Your task to perform on an android device: delete browsing data in the chrome app Image 0: 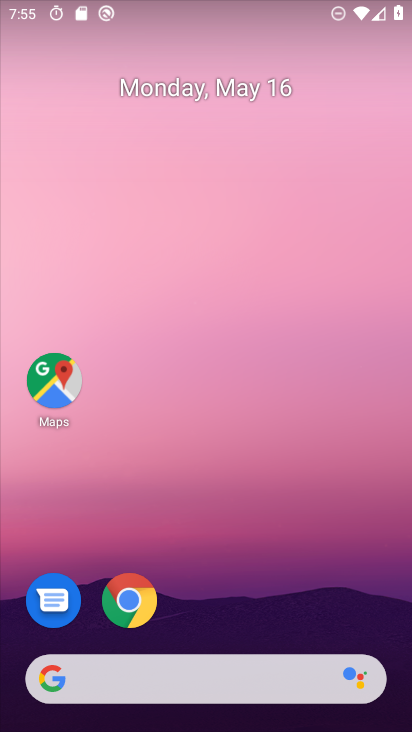
Step 0: click (142, 611)
Your task to perform on an android device: delete browsing data in the chrome app Image 1: 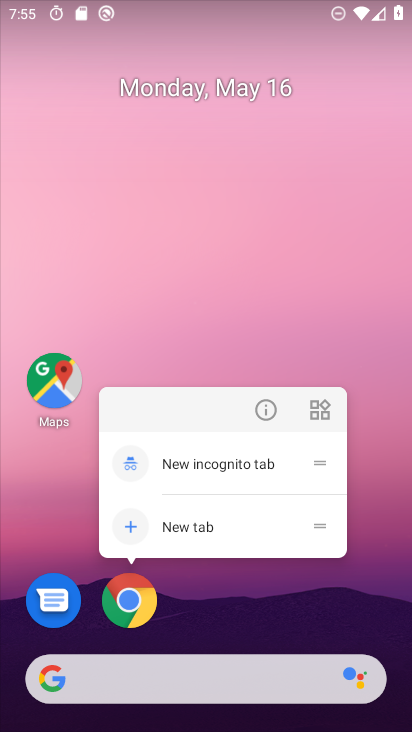
Step 1: click (140, 598)
Your task to perform on an android device: delete browsing data in the chrome app Image 2: 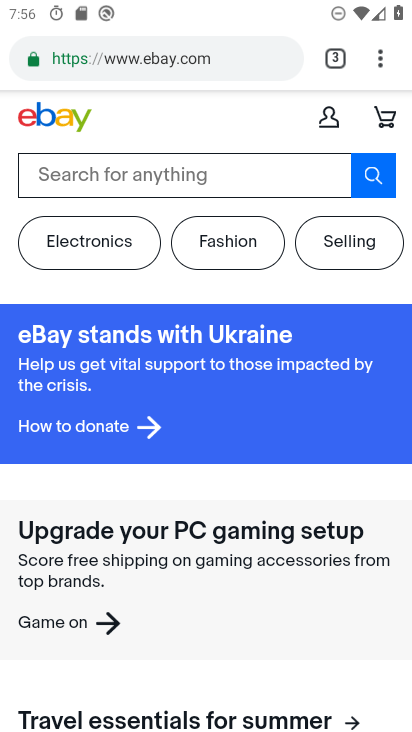
Step 2: drag from (374, 63) to (255, 645)
Your task to perform on an android device: delete browsing data in the chrome app Image 3: 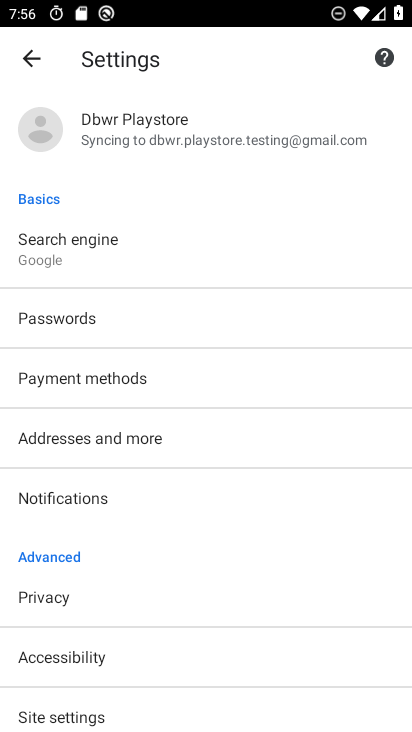
Step 3: click (70, 597)
Your task to perform on an android device: delete browsing data in the chrome app Image 4: 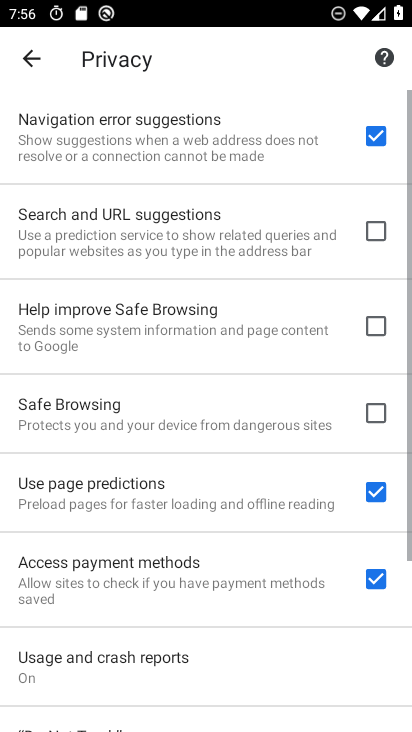
Step 4: drag from (159, 631) to (370, 109)
Your task to perform on an android device: delete browsing data in the chrome app Image 5: 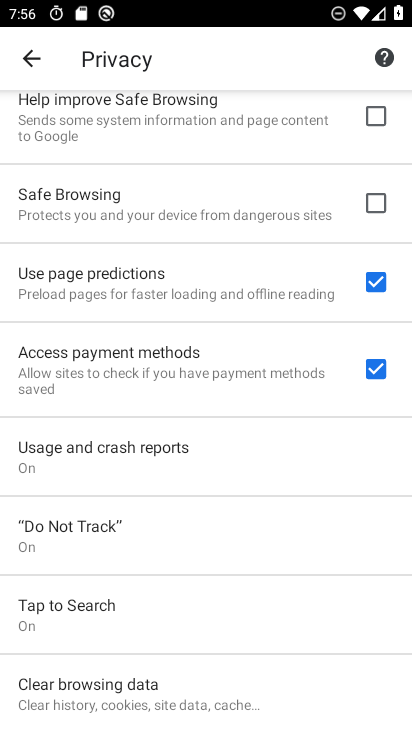
Step 5: click (148, 692)
Your task to perform on an android device: delete browsing data in the chrome app Image 6: 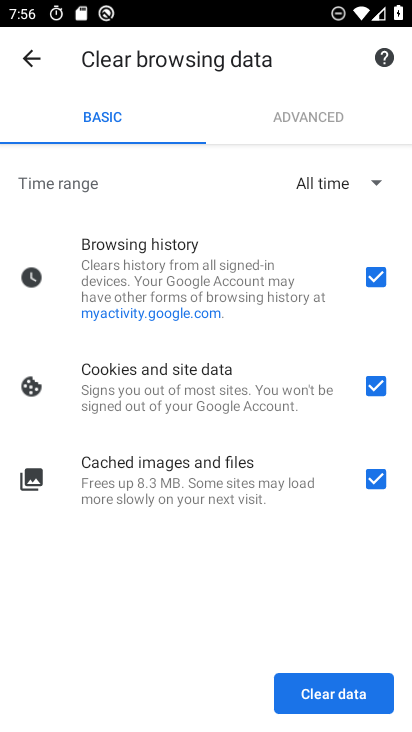
Step 6: click (327, 698)
Your task to perform on an android device: delete browsing data in the chrome app Image 7: 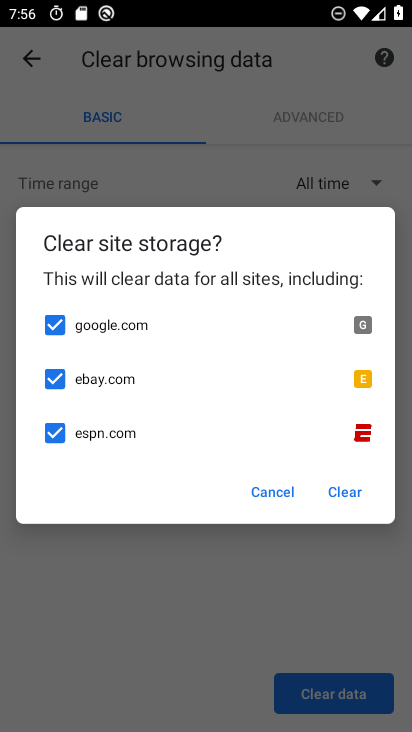
Step 7: click (347, 487)
Your task to perform on an android device: delete browsing data in the chrome app Image 8: 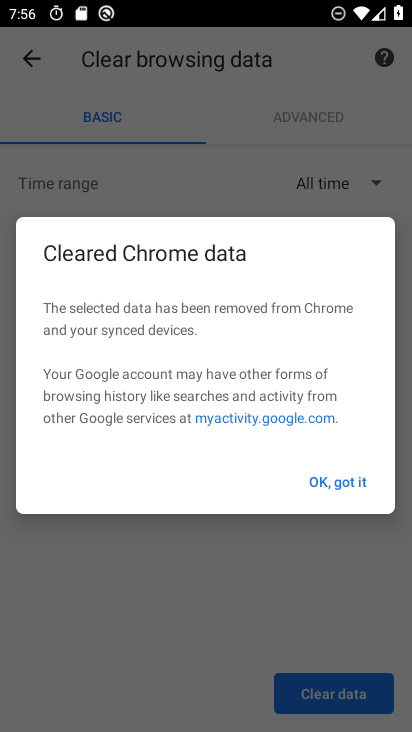
Step 8: click (350, 479)
Your task to perform on an android device: delete browsing data in the chrome app Image 9: 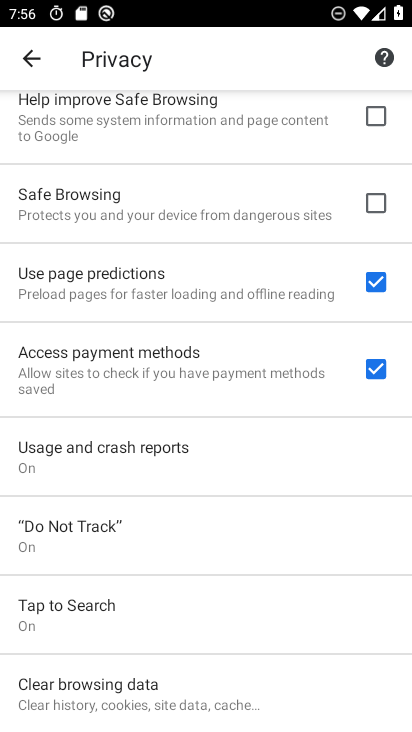
Step 9: task complete